Your task to perform on an android device: add a label to a message in the gmail app Image 0: 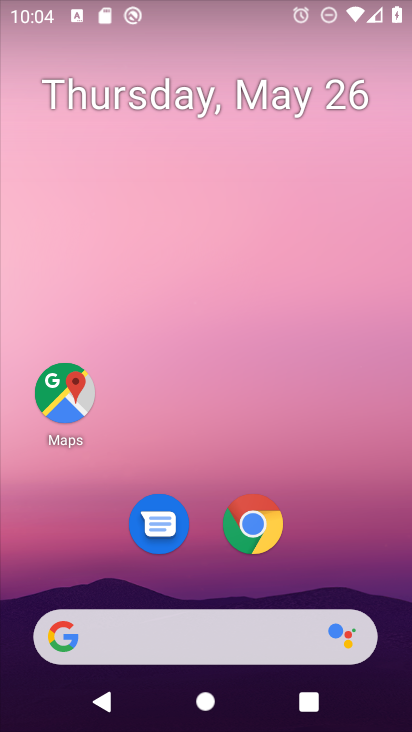
Step 0: drag from (325, 476) to (358, 41)
Your task to perform on an android device: add a label to a message in the gmail app Image 1: 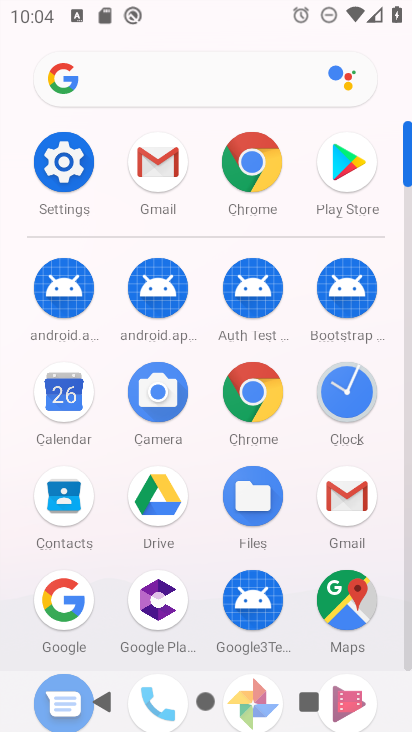
Step 1: click (169, 168)
Your task to perform on an android device: add a label to a message in the gmail app Image 2: 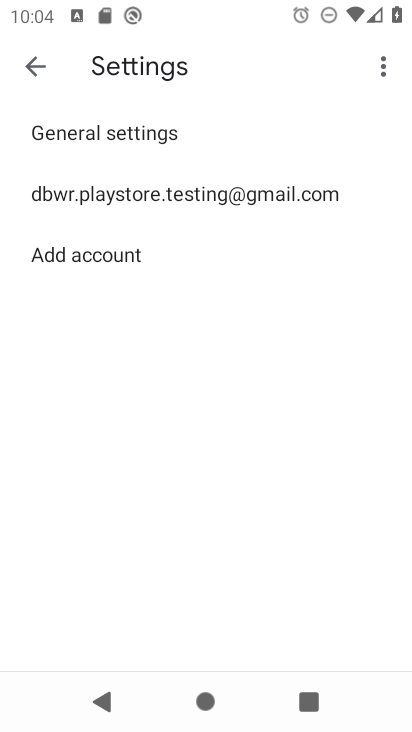
Step 2: click (33, 57)
Your task to perform on an android device: add a label to a message in the gmail app Image 3: 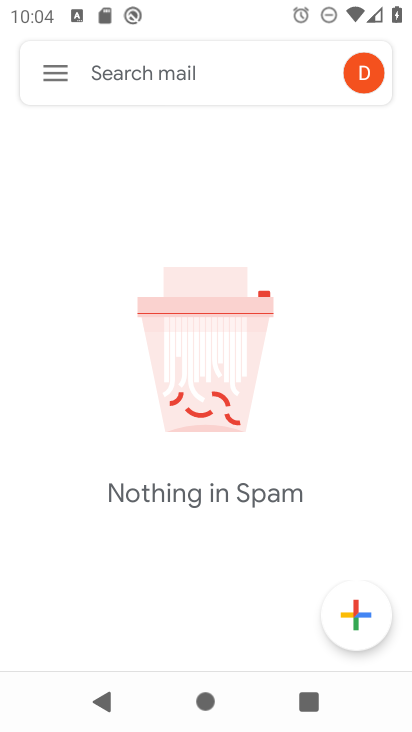
Step 3: click (47, 69)
Your task to perform on an android device: add a label to a message in the gmail app Image 4: 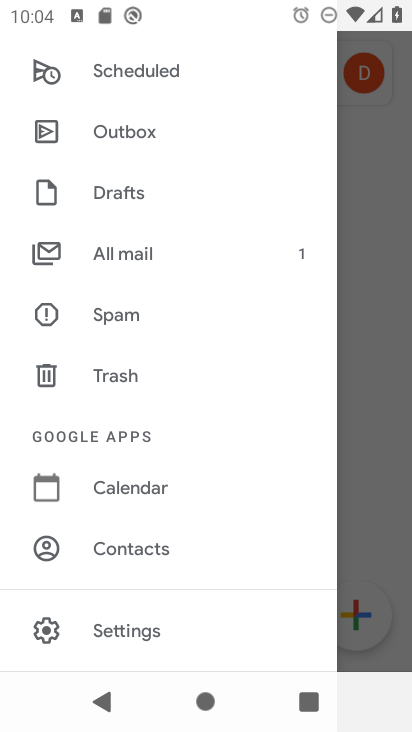
Step 4: click (121, 243)
Your task to perform on an android device: add a label to a message in the gmail app Image 5: 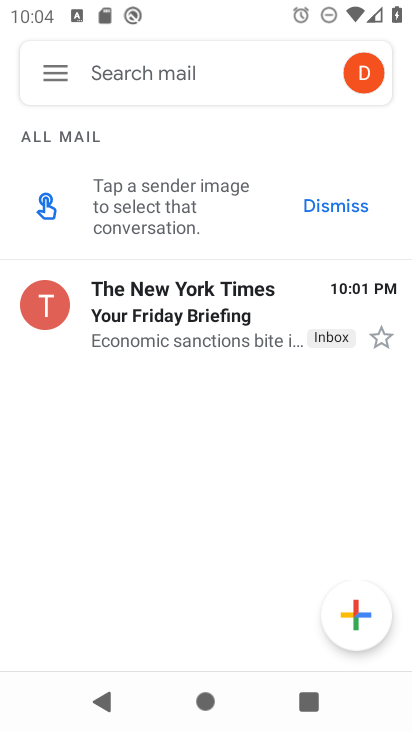
Step 5: click (152, 299)
Your task to perform on an android device: add a label to a message in the gmail app Image 6: 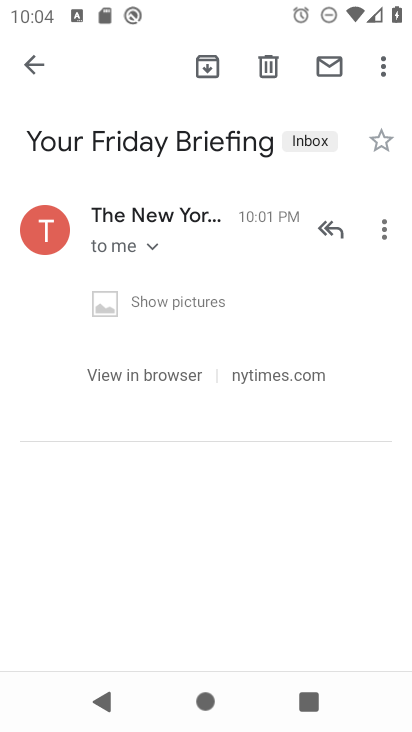
Step 6: click (384, 73)
Your task to perform on an android device: add a label to a message in the gmail app Image 7: 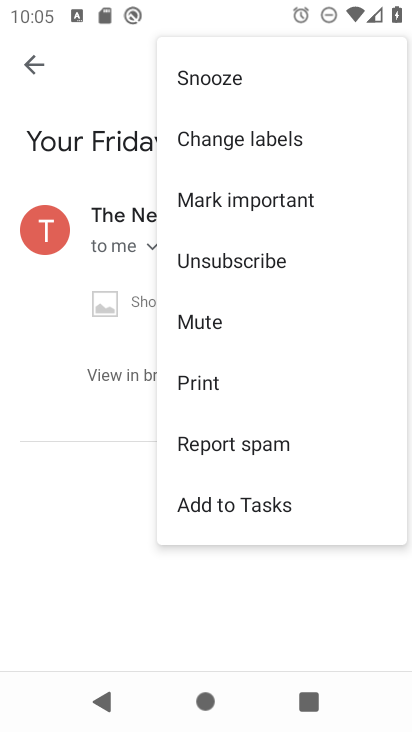
Step 7: click (288, 137)
Your task to perform on an android device: add a label to a message in the gmail app Image 8: 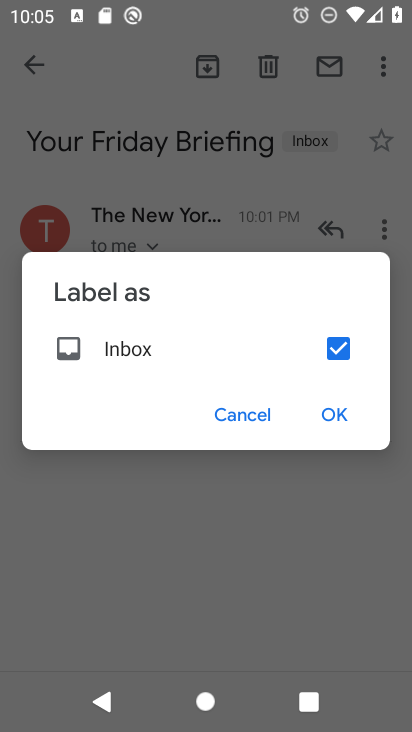
Step 8: click (343, 344)
Your task to perform on an android device: add a label to a message in the gmail app Image 9: 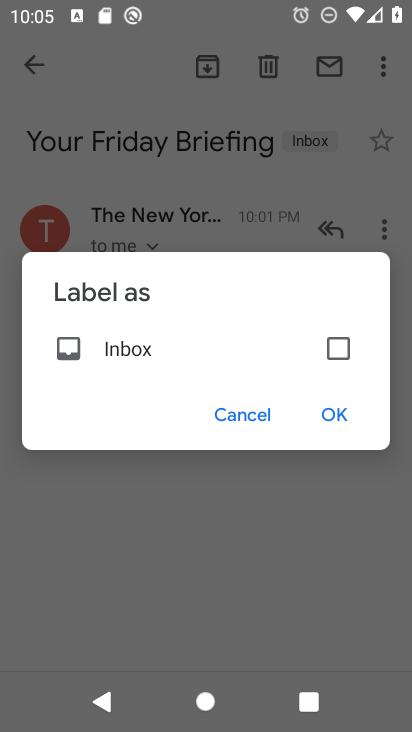
Step 9: click (343, 346)
Your task to perform on an android device: add a label to a message in the gmail app Image 10: 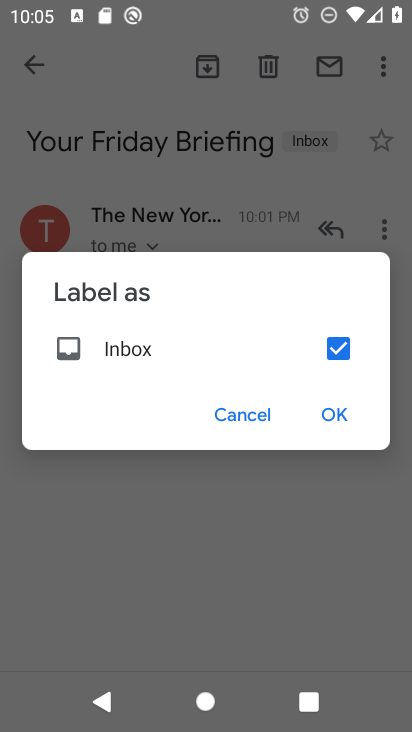
Step 10: click (330, 412)
Your task to perform on an android device: add a label to a message in the gmail app Image 11: 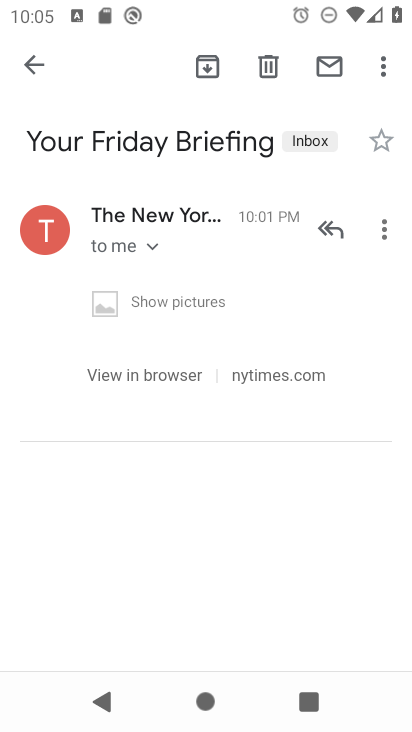
Step 11: task complete